Your task to perform on an android device: turn off data saver in the chrome app Image 0: 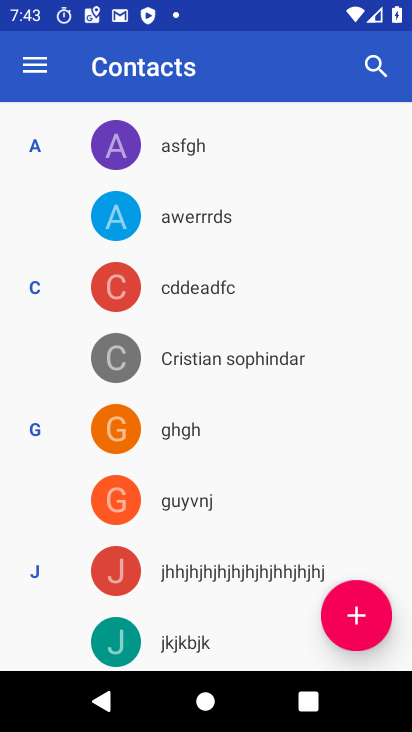
Step 0: press home button
Your task to perform on an android device: turn off data saver in the chrome app Image 1: 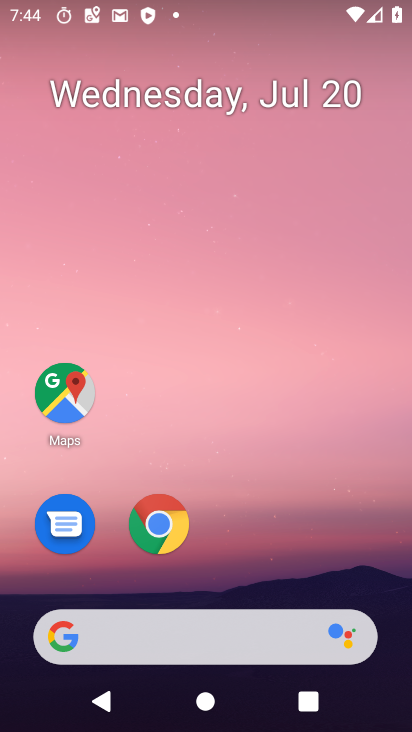
Step 1: click (166, 519)
Your task to perform on an android device: turn off data saver in the chrome app Image 2: 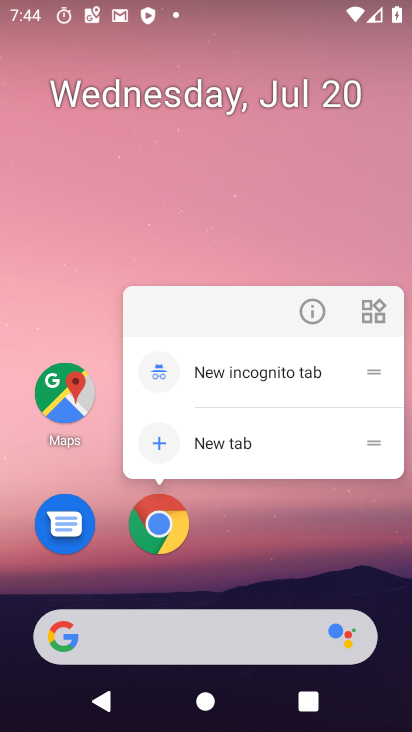
Step 2: click (161, 523)
Your task to perform on an android device: turn off data saver in the chrome app Image 3: 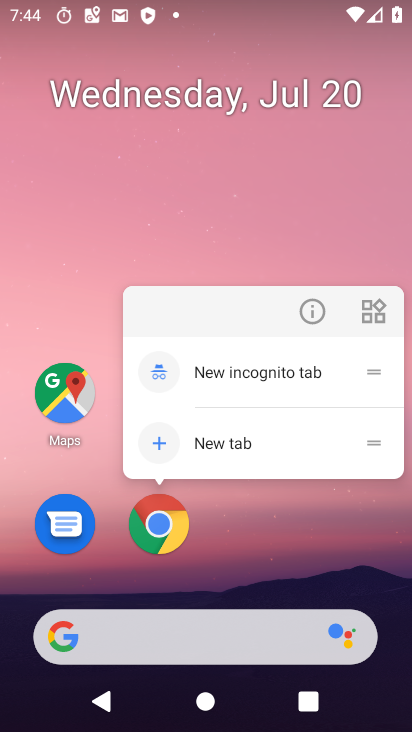
Step 3: click (153, 531)
Your task to perform on an android device: turn off data saver in the chrome app Image 4: 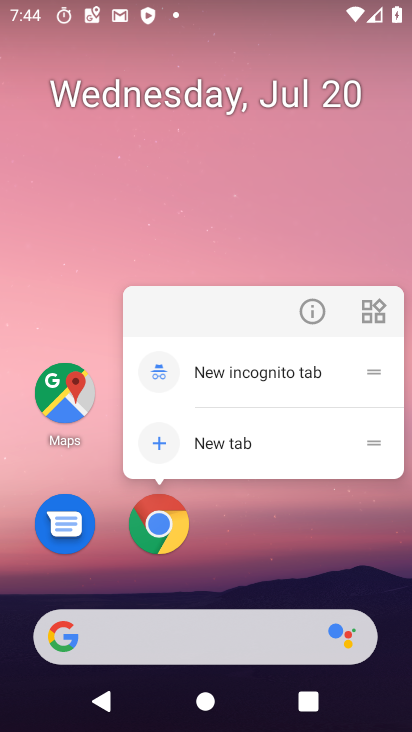
Step 4: click (150, 537)
Your task to perform on an android device: turn off data saver in the chrome app Image 5: 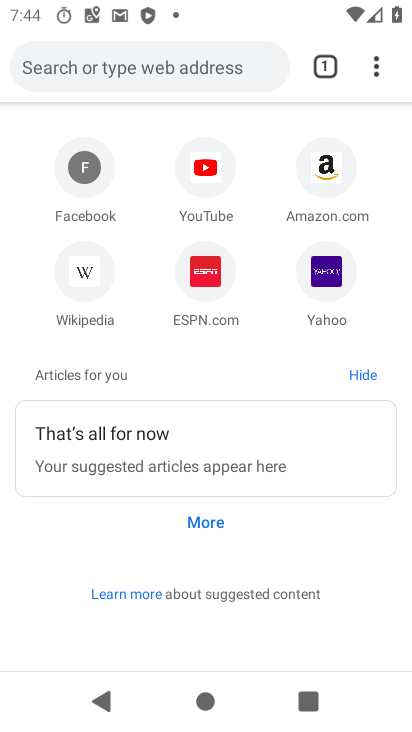
Step 5: drag from (373, 60) to (136, 550)
Your task to perform on an android device: turn off data saver in the chrome app Image 6: 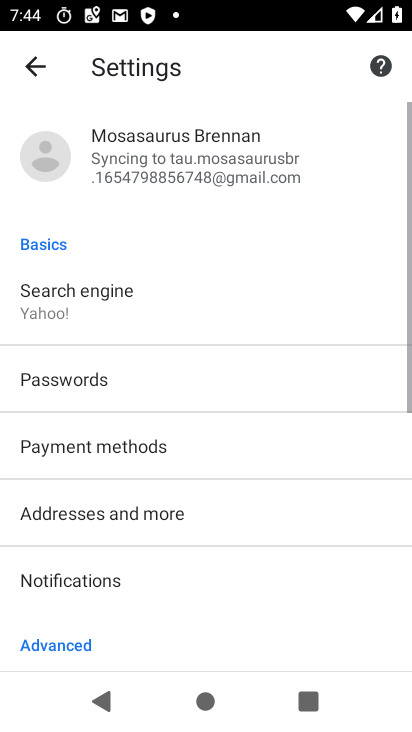
Step 6: drag from (113, 583) to (324, 51)
Your task to perform on an android device: turn off data saver in the chrome app Image 7: 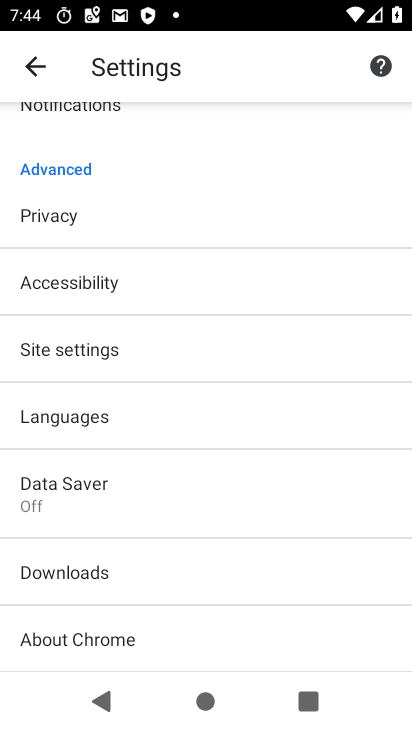
Step 7: click (67, 499)
Your task to perform on an android device: turn off data saver in the chrome app Image 8: 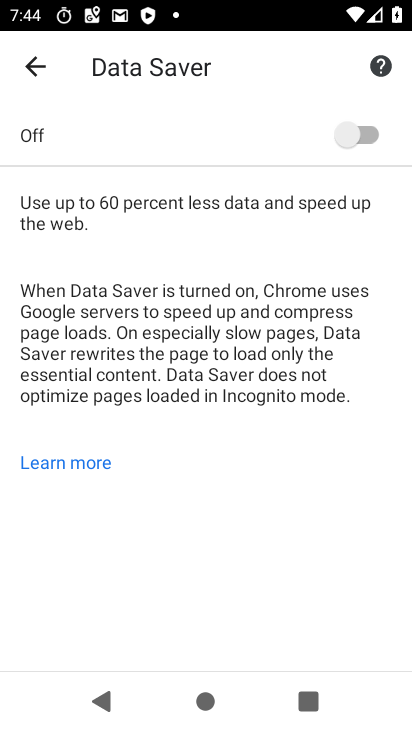
Step 8: task complete